Your task to perform on an android device: change the clock display to analog Image 0: 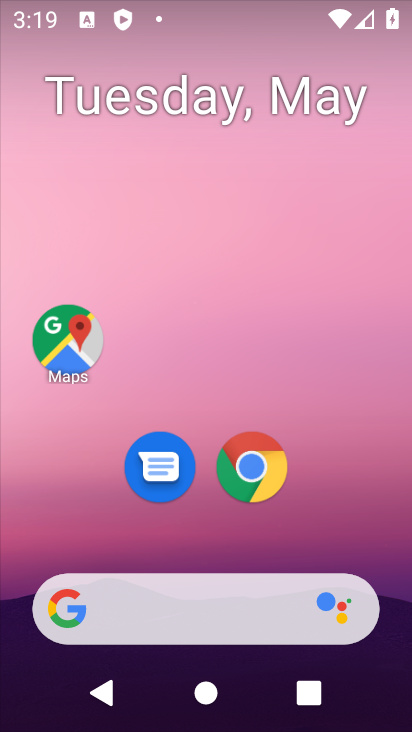
Step 0: task complete